Your task to perform on an android device: Go to Yahoo.com Image 0: 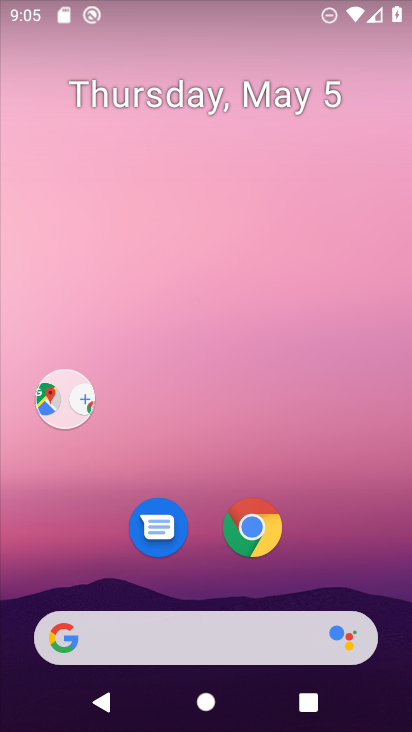
Step 0: drag from (345, 590) to (143, 1)
Your task to perform on an android device: Go to Yahoo.com Image 1: 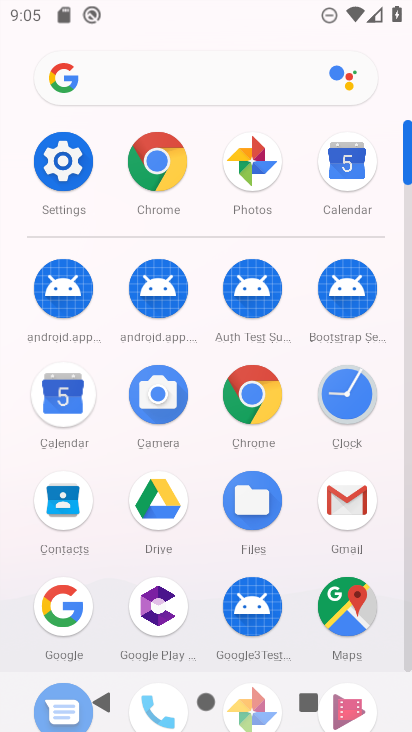
Step 1: click (165, 166)
Your task to perform on an android device: Go to Yahoo.com Image 2: 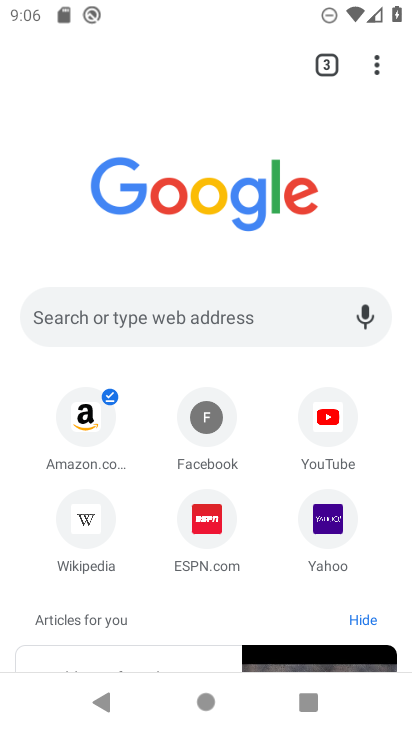
Step 2: click (328, 528)
Your task to perform on an android device: Go to Yahoo.com Image 3: 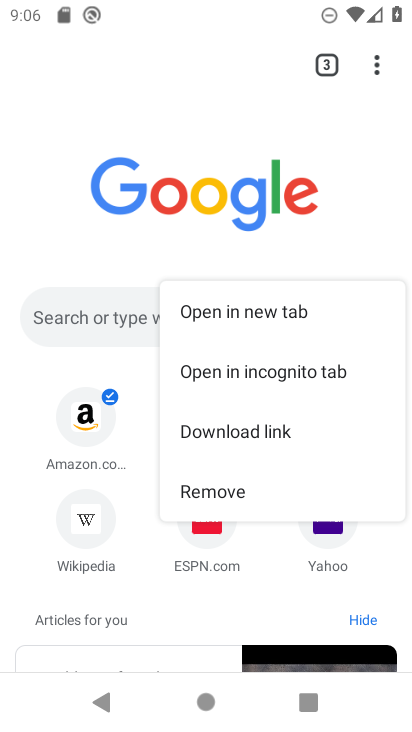
Step 3: click (274, 307)
Your task to perform on an android device: Go to Yahoo.com Image 4: 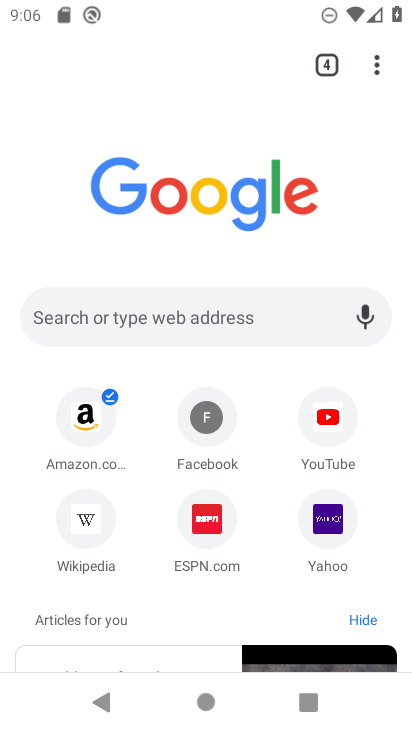
Step 4: click (334, 518)
Your task to perform on an android device: Go to Yahoo.com Image 5: 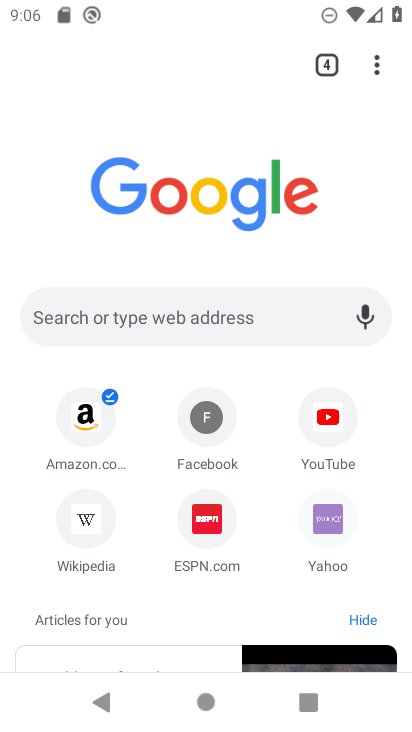
Step 5: click (332, 519)
Your task to perform on an android device: Go to Yahoo.com Image 6: 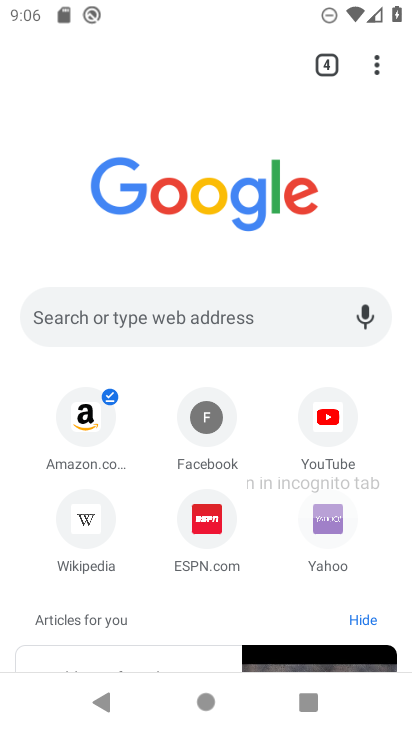
Step 6: click (331, 520)
Your task to perform on an android device: Go to Yahoo.com Image 7: 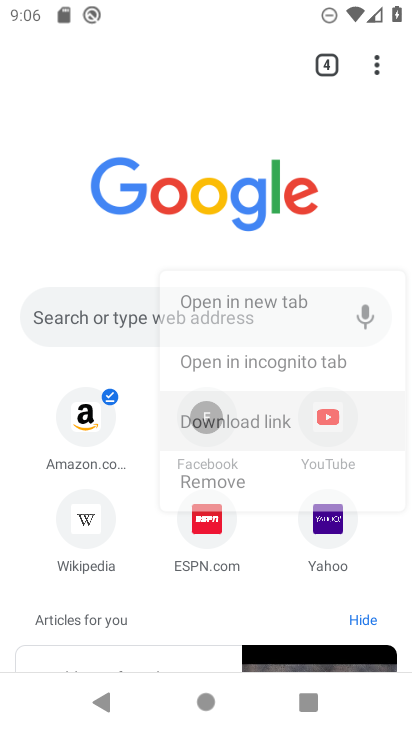
Step 7: click (331, 521)
Your task to perform on an android device: Go to Yahoo.com Image 8: 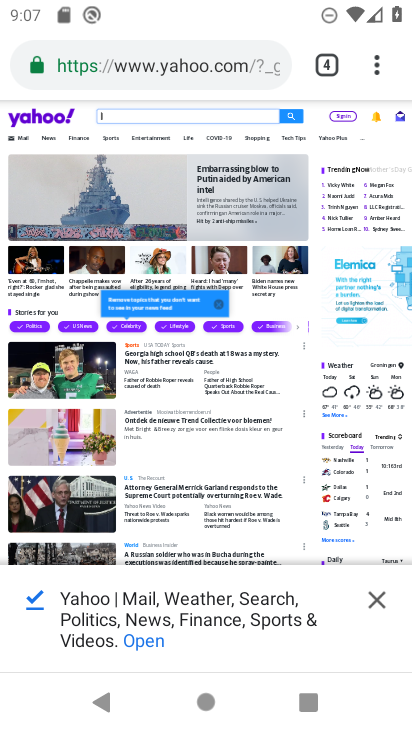
Step 8: task complete